Your task to perform on an android device: open sync settings in chrome Image 0: 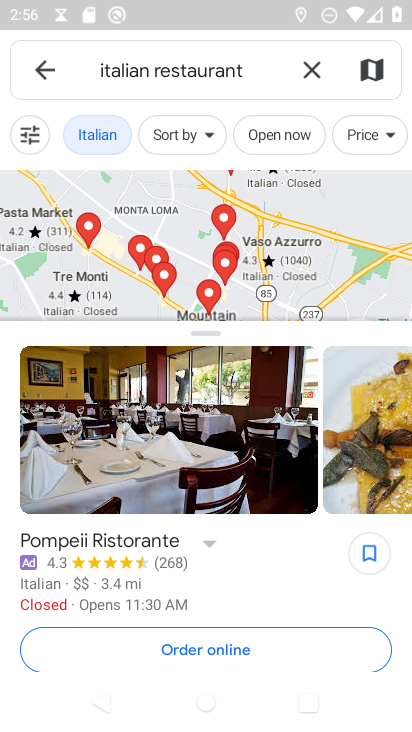
Step 0: press home button
Your task to perform on an android device: open sync settings in chrome Image 1: 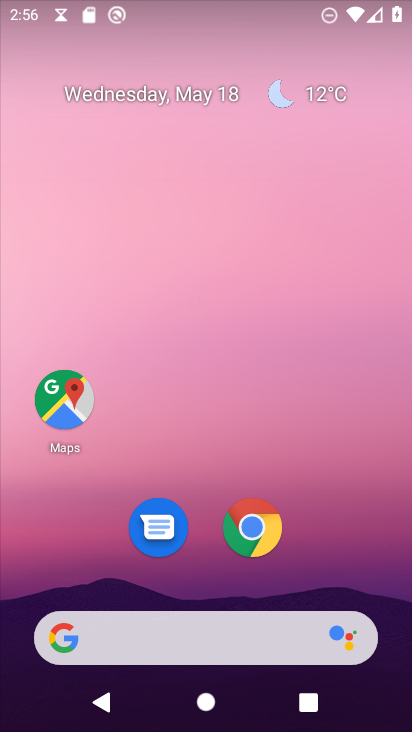
Step 1: click (255, 521)
Your task to perform on an android device: open sync settings in chrome Image 2: 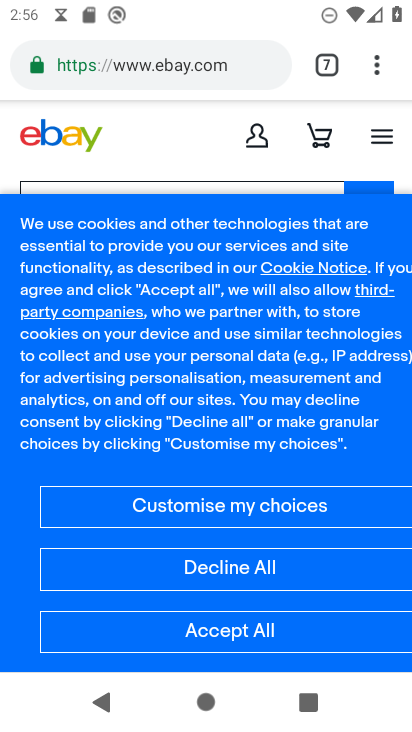
Step 2: click (365, 94)
Your task to perform on an android device: open sync settings in chrome Image 3: 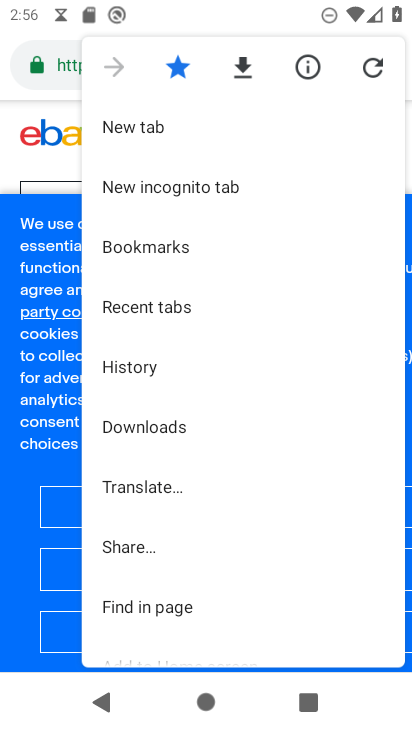
Step 3: drag from (179, 568) to (184, 220)
Your task to perform on an android device: open sync settings in chrome Image 4: 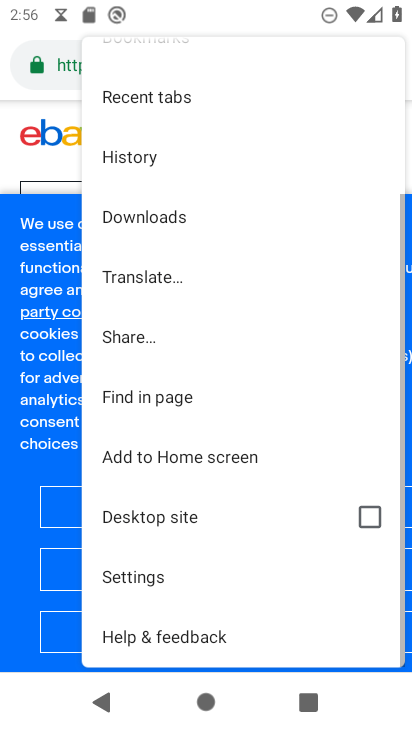
Step 4: click (188, 575)
Your task to perform on an android device: open sync settings in chrome Image 5: 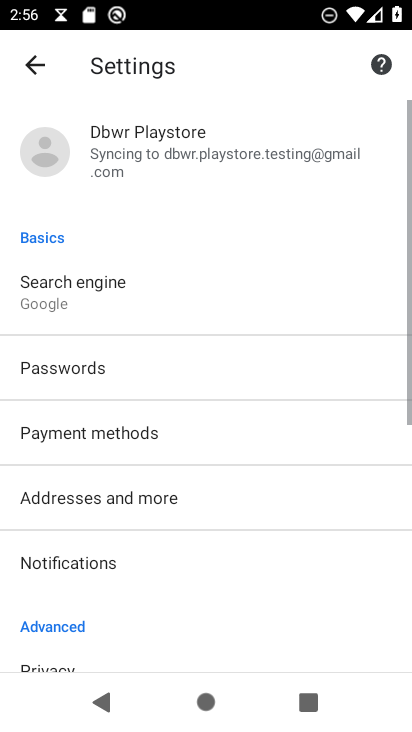
Step 5: drag from (170, 583) to (178, 183)
Your task to perform on an android device: open sync settings in chrome Image 6: 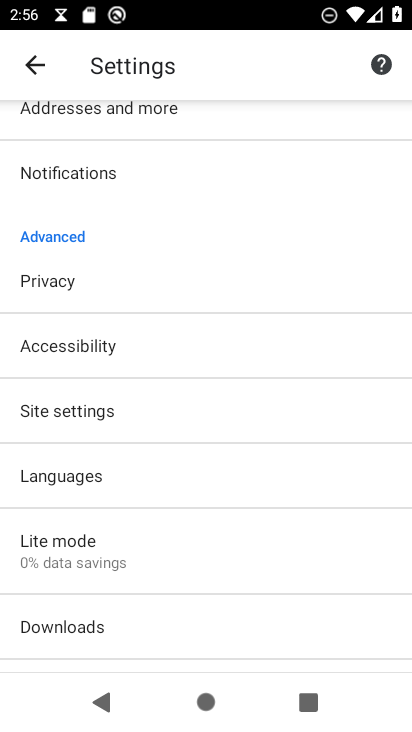
Step 6: click (116, 412)
Your task to perform on an android device: open sync settings in chrome Image 7: 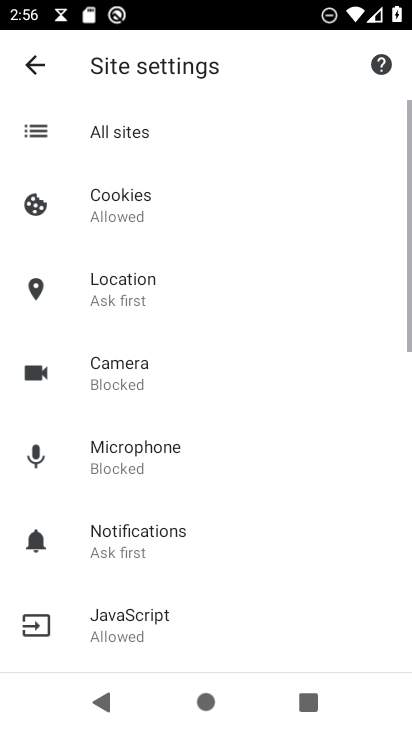
Step 7: drag from (199, 578) to (220, 238)
Your task to perform on an android device: open sync settings in chrome Image 8: 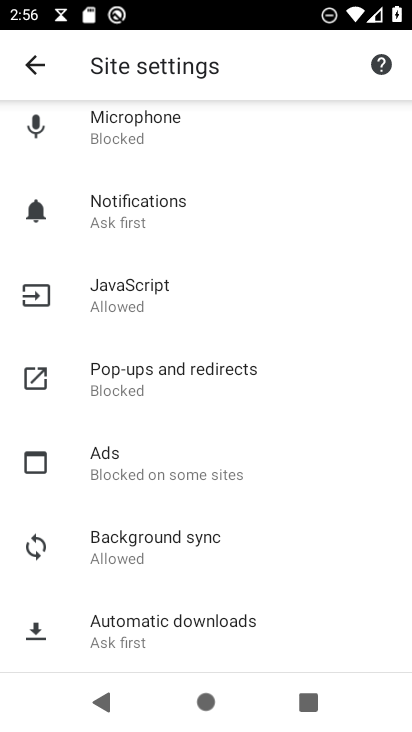
Step 8: click (155, 537)
Your task to perform on an android device: open sync settings in chrome Image 9: 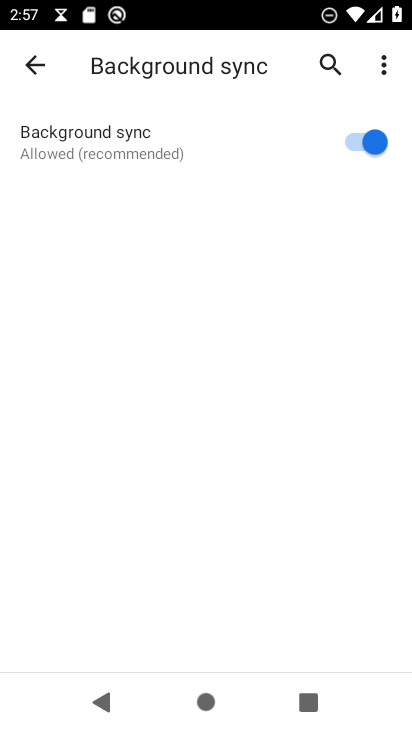
Step 9: task complete